Your task to perform on an android device: Open the Play Movies app and select the watchlist tab. Image 0: 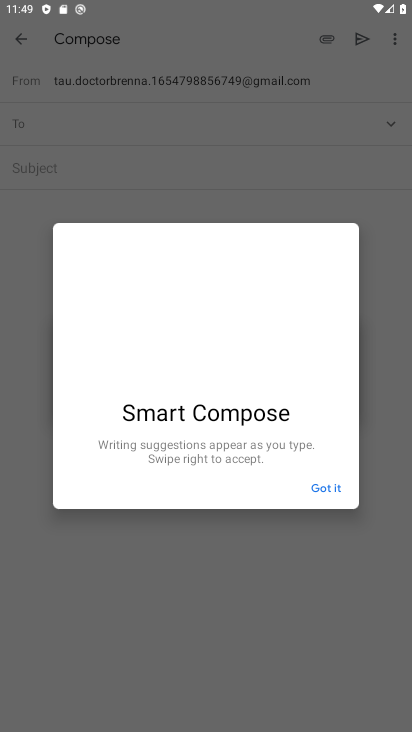
Step 0: press home button
Your task to perform on an android device: Open the Play Movies app and select the watchlist tab. Image 1: 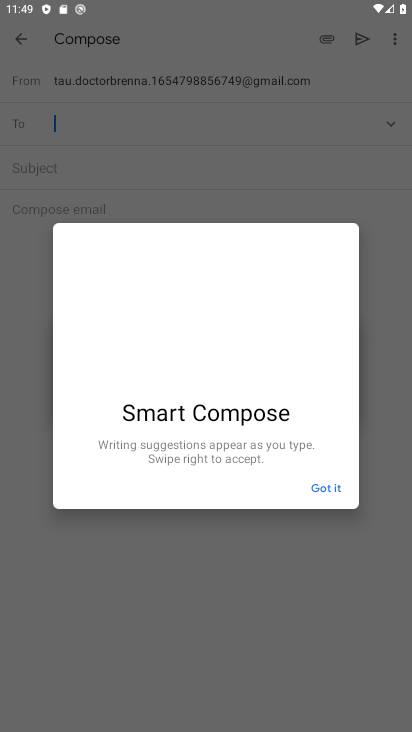
Step 1: drag from (371, 670) to (187, 16)
Your task to perform on an android device: Open the Play Movies app and select the watchlist tab. Image 2: 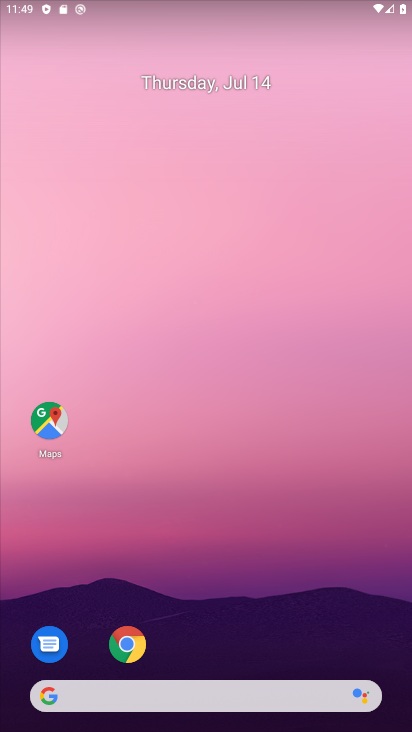
Step 2: drag from (351, 637) to (160, 74)
Your task to perform on an android device: Open the Play Movies app and select the watchlist tab. Image 3: 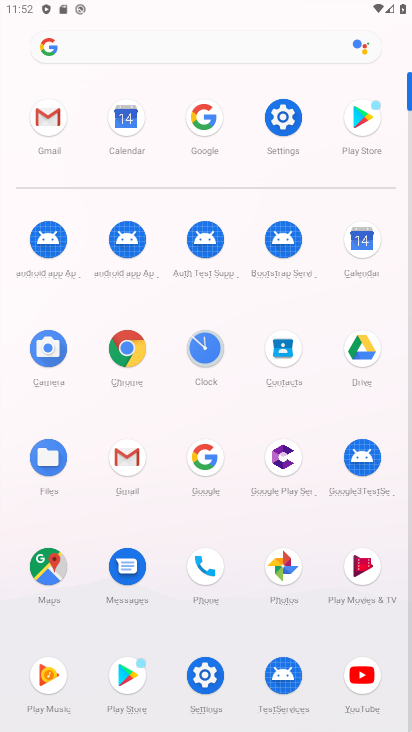
Step 3: click (364, 555)
Your task to perform on an android device: Open the Play Movies app and select the watchlist tab. Image 4: 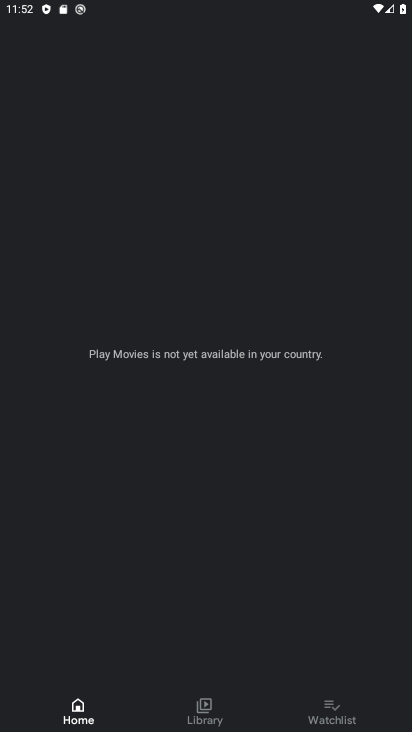
Step 4: click (323, 697)
Your task to perform on an android device: Open the Play Movies app and select the watchlist tab. Image 5: 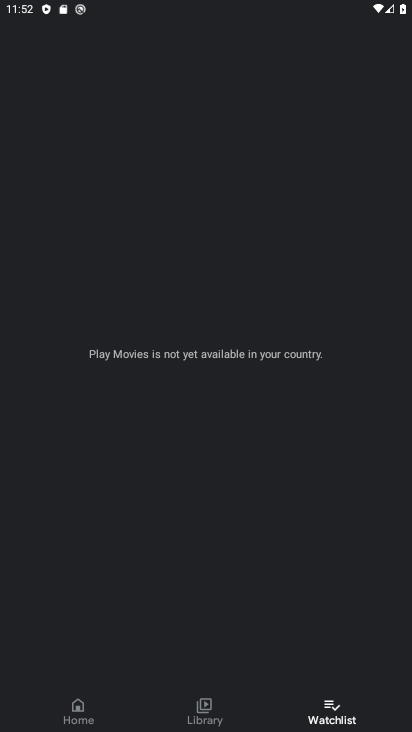
Step 5: task complete